Your task to perform on an android device: turn on wifi Image 0: 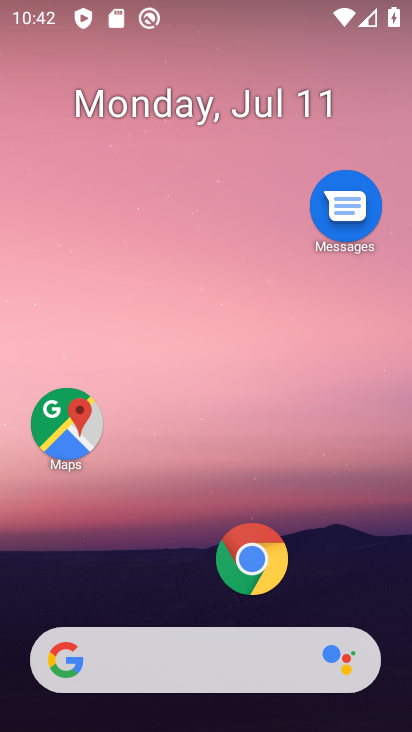
Step 0: drag from (374, 576) to (364, 151)
Your task to perform on an android device: turn on wifi Image 1: 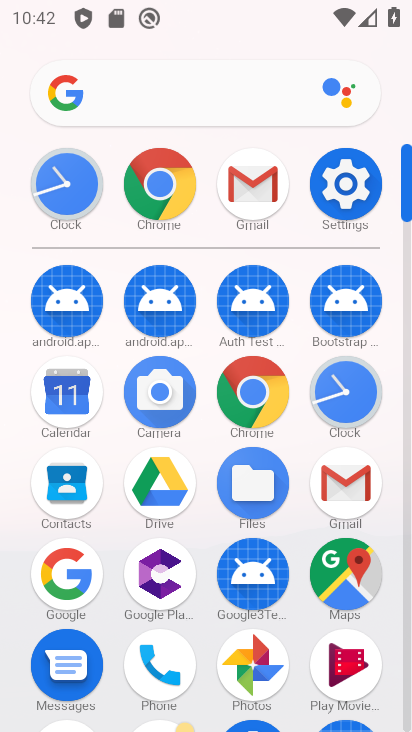
Step 1: click (364, 205)
Your task to perform on an android device: turn on wifi Image 2: 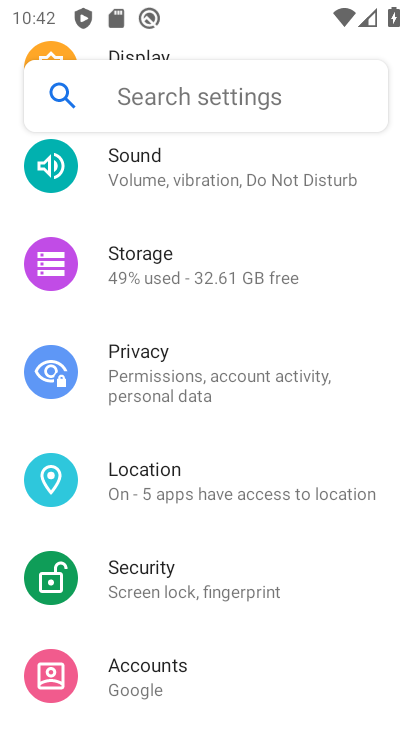
Step 2: drag from (378, 590) to (355, 455)
Your task to perform on an android device: turn on wifi Image 3: 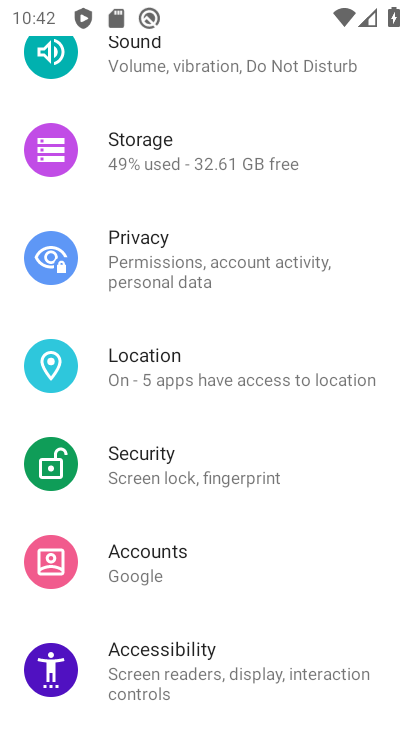
Step 3: drag from (364, 592) to (350, 474)
Your task to perform on an android device: turn on wifi Image 4: 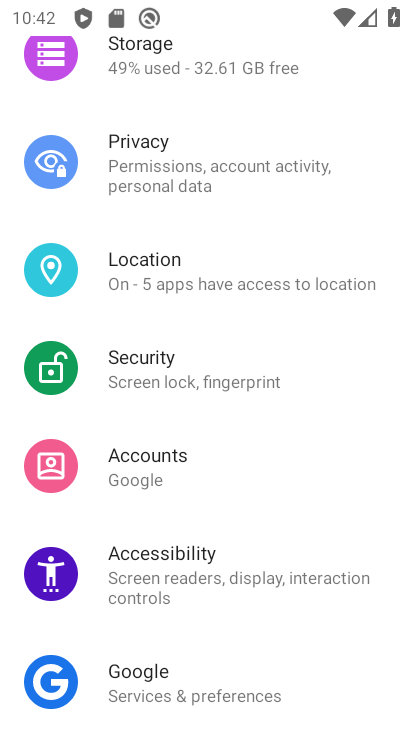
Step 4: drag from (346, 628) to (339, 484)
Your task to perform on an android device: turn on wifi Image 5: 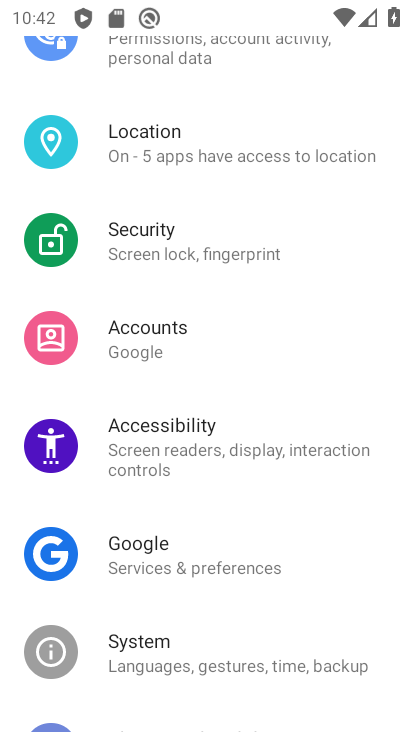
Step 5: drag from (357, 360) to (353, 460)
Your task to perform on an android device: turn on wifi Image 6: 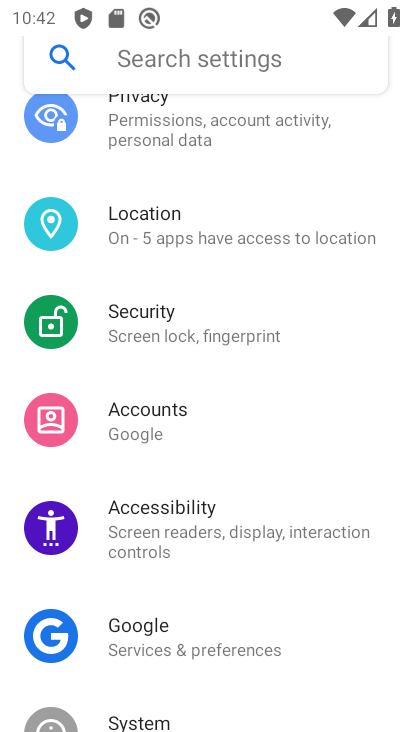
Step 6: drag from (370, 337) to (372, 418)
Your task to perform on an android device: turn on wifi Image 7: 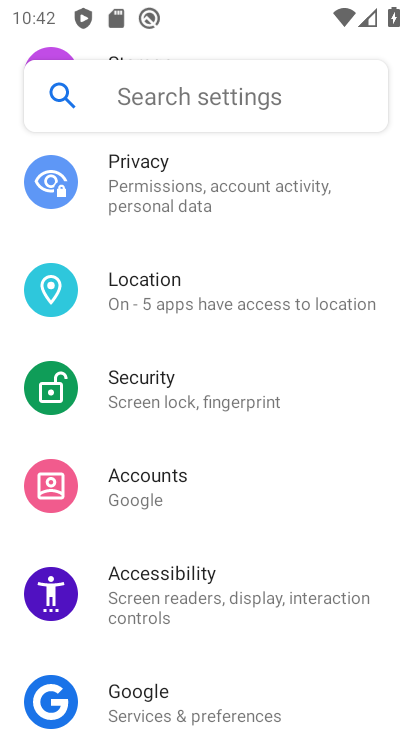
Step 7: drag from (370, 341) to (369, 433)
Your task to perform on an android device: turn on wifi Image 8: 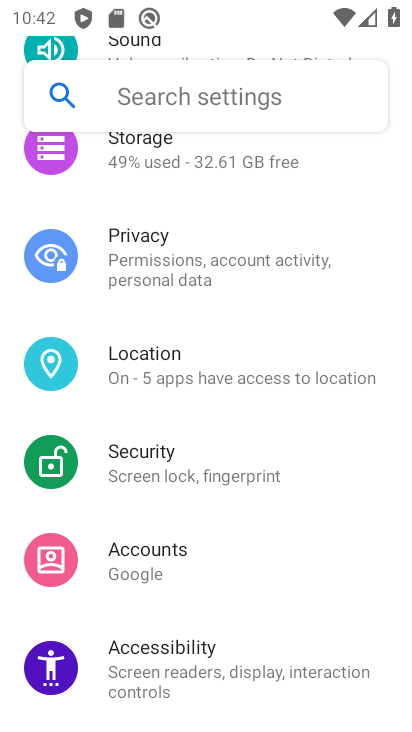
Step 8: drag from (380, 339) to (382, 433)
Your task to perform on an android device: turn on wifi Image 9: 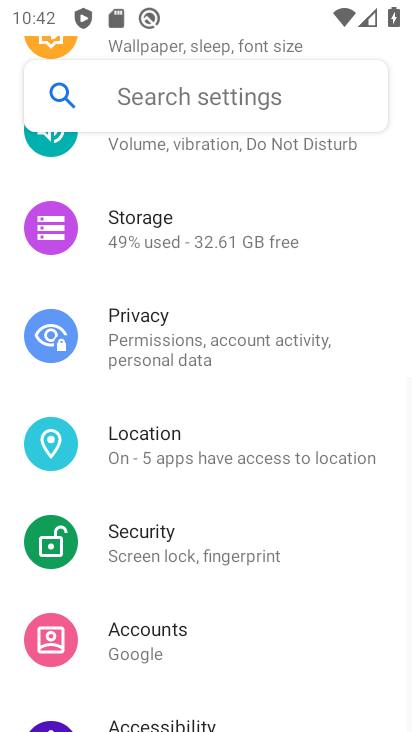
Step 9: drag from (376, 328) to (377, 431)
Your task to perform on an android device: turn on wifi Image 10: 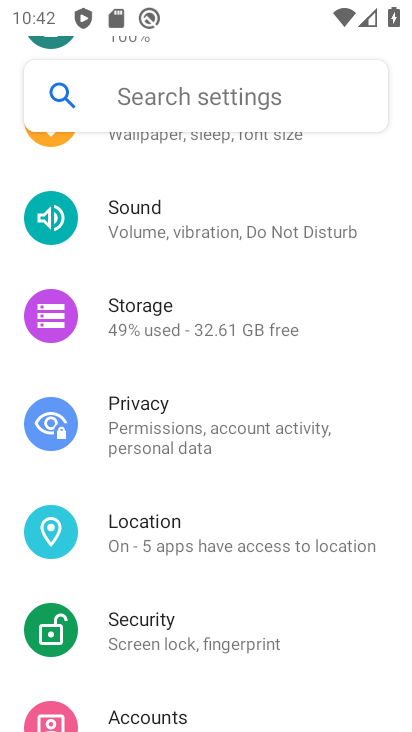
Step 10: drag from (356, 319) to (365, 422)
Your task to perform on an android device: turn on wifi Image 11: 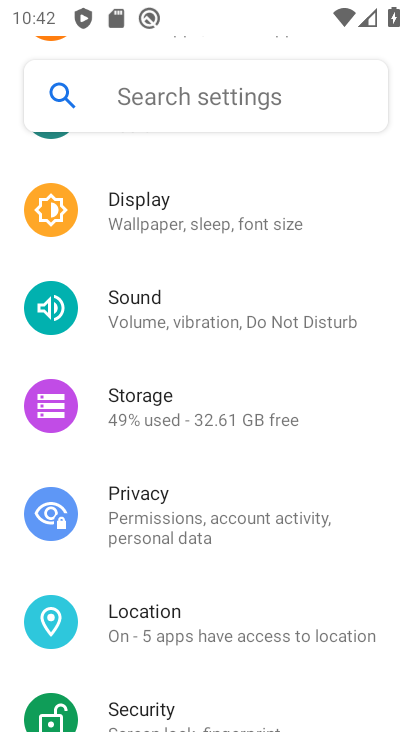
Step 11: drag from (376, 309) to (379, 411)
Your task to perform on an android device: turn on wifi Image 12: 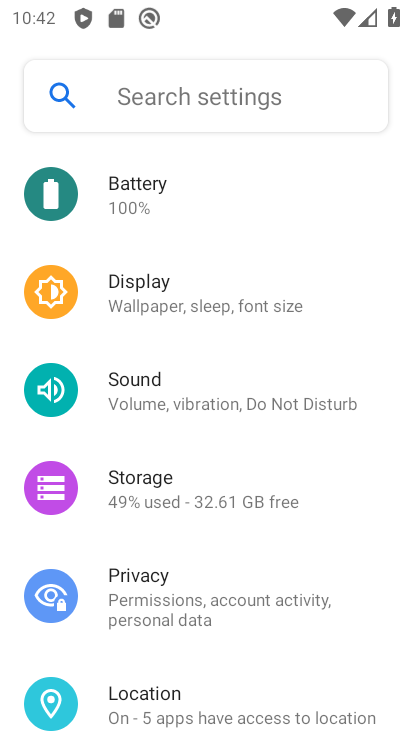
Step 12: drag from (373, 295) to (373, 424)
Your task to perform on an android device: turn on wifi Image 13: 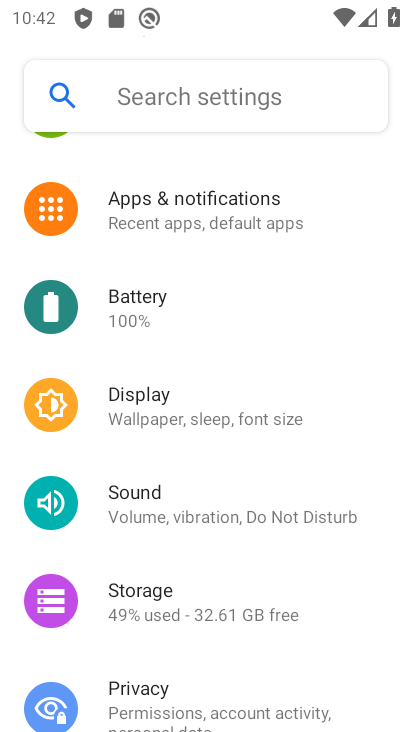
Step 13: drag from (369, 308) to (356, 432)
Your task to perform on an android device: turn on wifi Image 14: 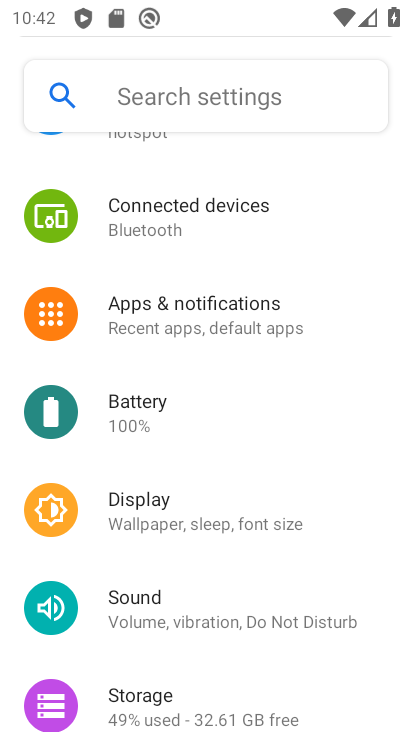
Step 14: drag from (343, 285) to (340, 426)
Your task to perform on an android device: turn on wifi Image 15: 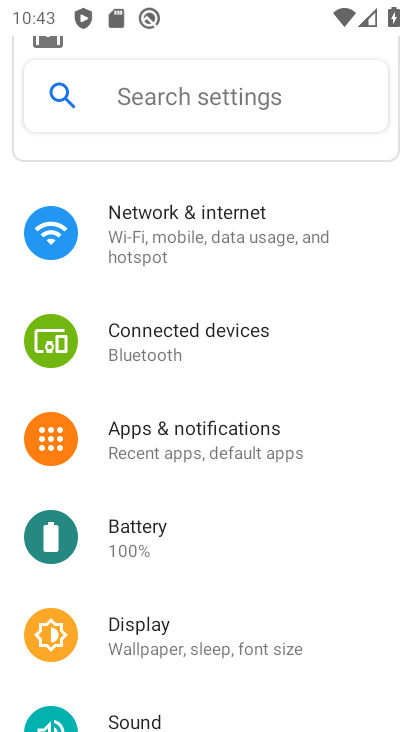
Step 15: drag from (341, 275) to (363, 542)
Your task to perform on an android device: turn on wifi Image 16: 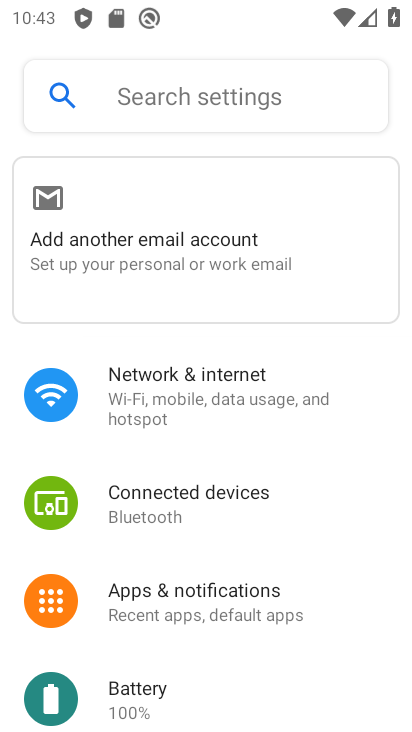
Step 16: click (319, 392)
Your task to perform on an android device: turn on wifi Image 17: 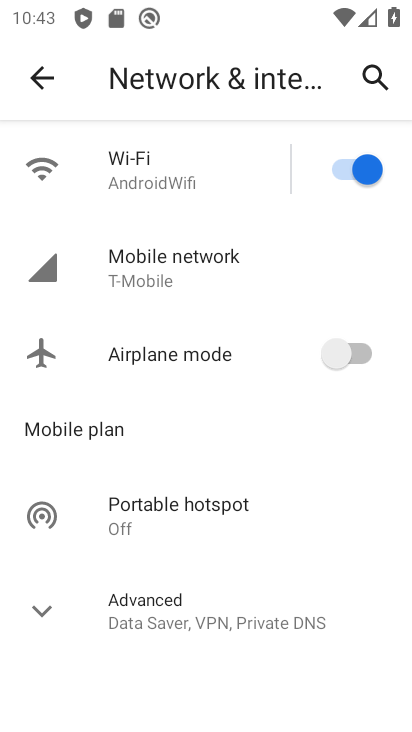
Step 17: task complete